Your task to perform on an android device: Go to Amazon Image 0: 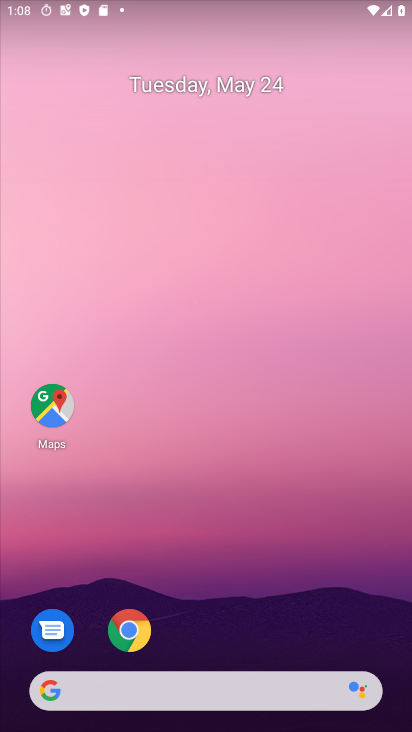
Step 0: click (134, 629)
Your task to perform on an android device: Go to Amazon Image 1: 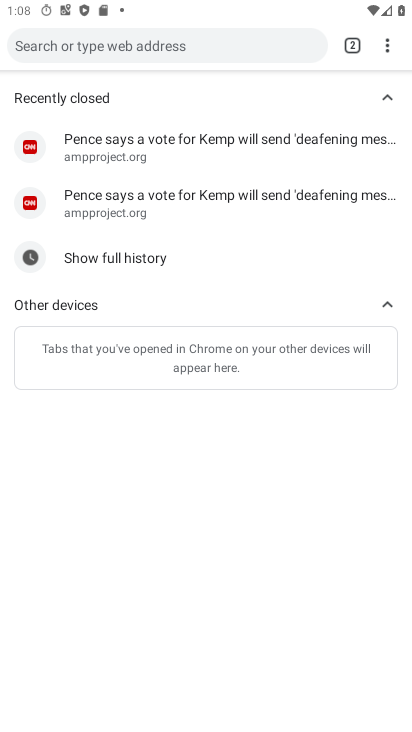
Step 1: click (98, 45)
Your task to perform on an android device: Go to Amazon Image 2: 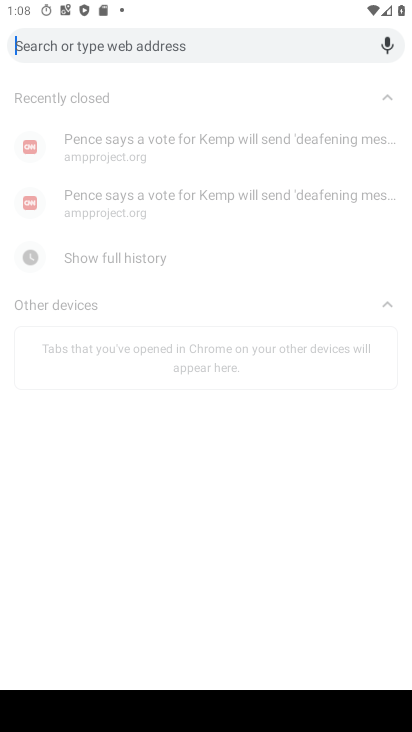
Step 2: type "amazon"
Your task to perform on an android device: Go to Amazon Image 3: 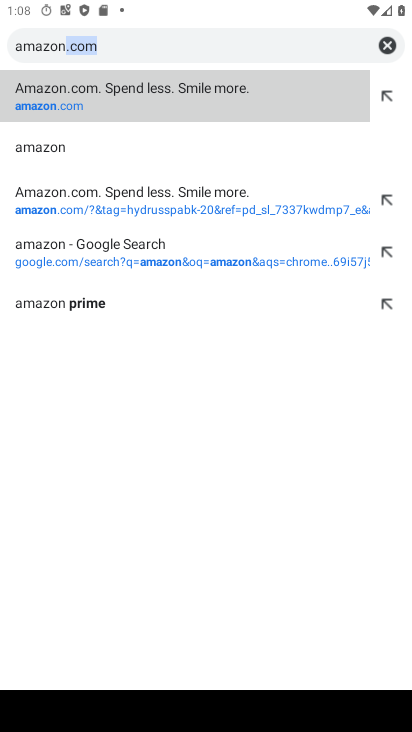
Step 3: click (54, 108)
Your task to perform on an android device: Go to Amazon Image 4: 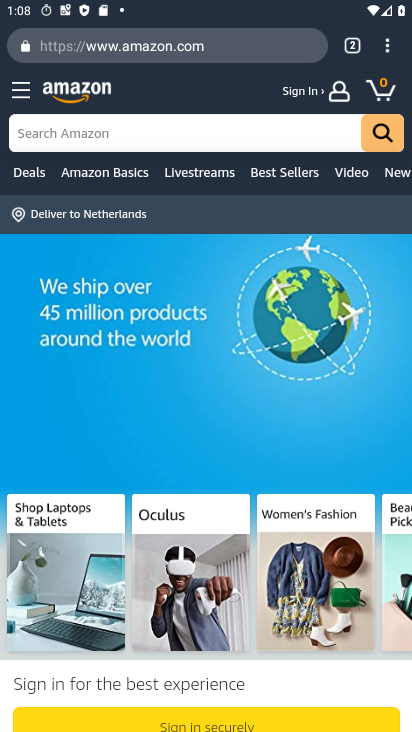
Step 4: task complete